Your task to perform on an android device: open app "PlayWell" (install if not already installed) Image 0: 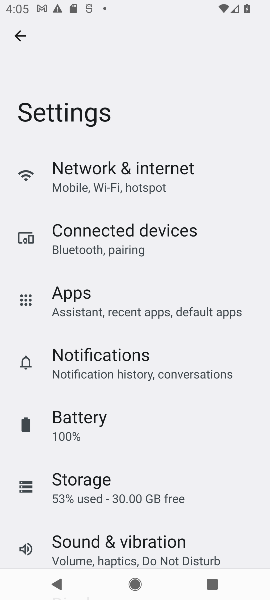
Step 0: press home button
Your task to perform on an android device: open app "PlayWell" (install if not already installed) Image 1: 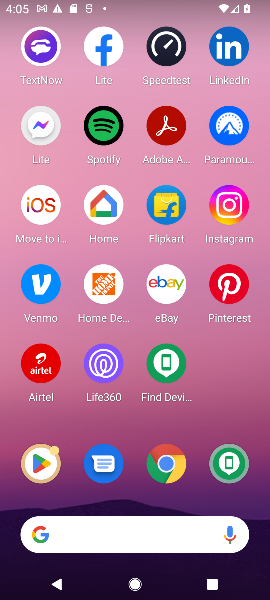
Step 1: drag from (100, 539) to (111, 78)
Your task to perform on an android device: open app "PlayWell" (install if not already installed) Image 2: 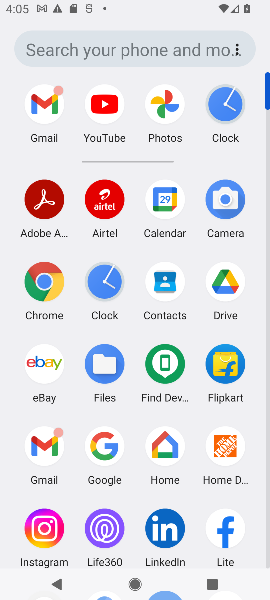
Step 2: drag from (132, 495) to (126, 146)
Your task to perform on an android device: open app "PlayWell" (install if not already installed) Image 3: 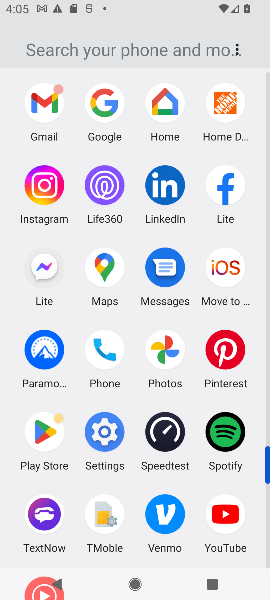
Step 3: click (49, 433)
Your task to perform on an android device: open app "PlayWell" (install if not already installed) Image 4: 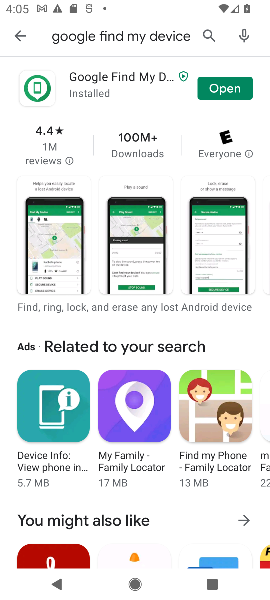
Step 4: click (212, 31)
Your task to perform on an android device: open app "PlayWell" (install if not already installed) Image 5: 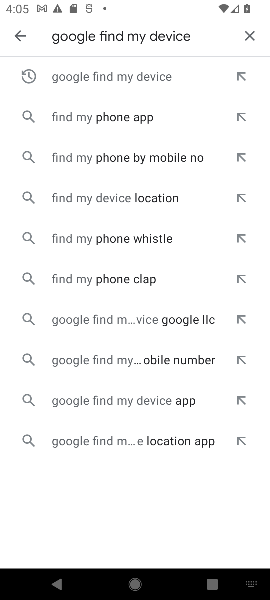
Step 5: click (248, 31)
Your task to perform on an android device: open app "PlayWell" (install if not already installed) Image 6: 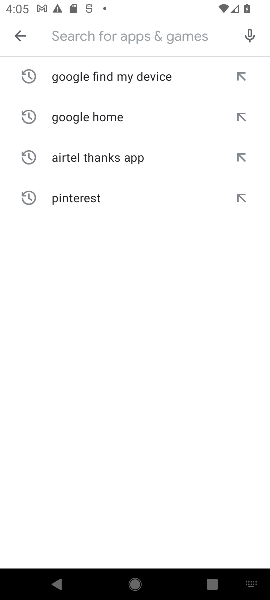
Step 6: click (198, 43)
Your task to perform on an android device: open app "PlayWell" (install if not already installed) Image 7: 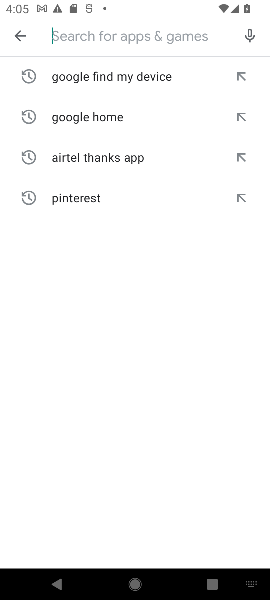
Step 7: type "PlayWell"
Your task to perform on an android device: open app "PlayWell" (install if not already installed) Image 8: 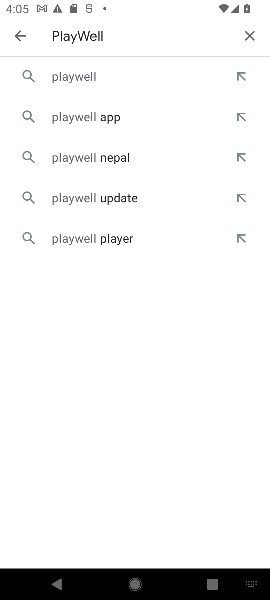
Step 8: click (79, 72)
Your task to perform on an android device: open app "PlayWell" (install if not already installed) Image 9: 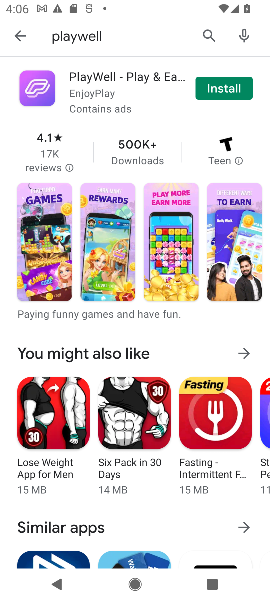
Step 9: click (230, 87)
Your task to perform on an android device: open app "PlayWell" (install if not already installed) Image 10: 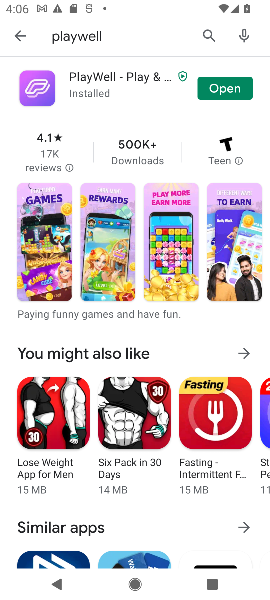
Step 10: click (222, 89)
Your task to perform on an android device: open app "PlayWell" (install if not already installed) Image 11: 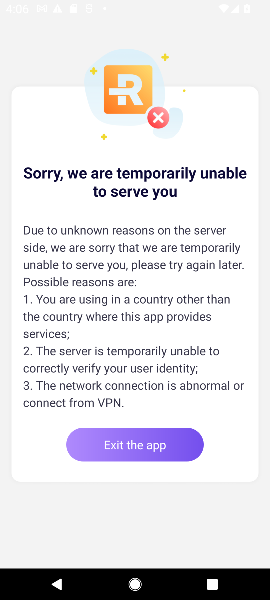
Step 11: task complete